Your task to perform on an android device: Open eBay Image 0: 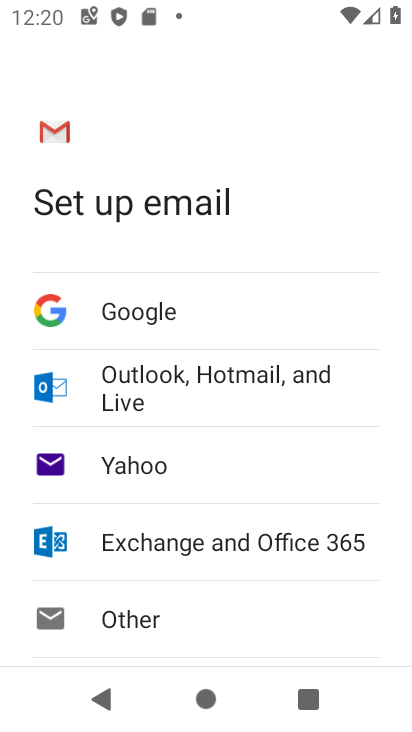
Step 0: press home button
Your task to perform on an android device: Open eBay Image 1: 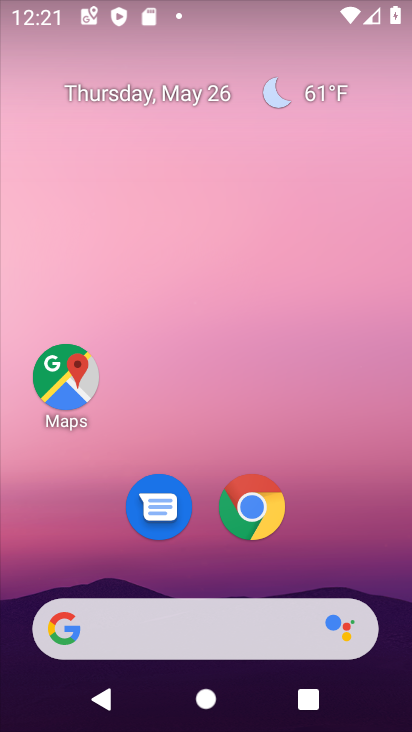
Step 1: click (267, 501)
Your task to perform on an android device: Open eBay Image 2: 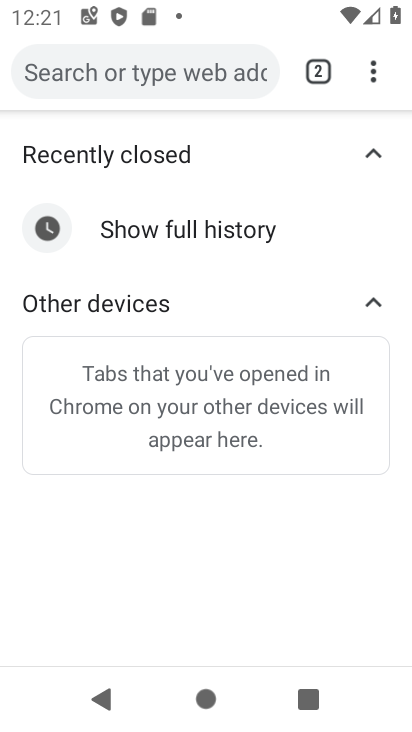
Step 2: click (89, 61)
Your task to perform on an android device: Open eBay Image 3: 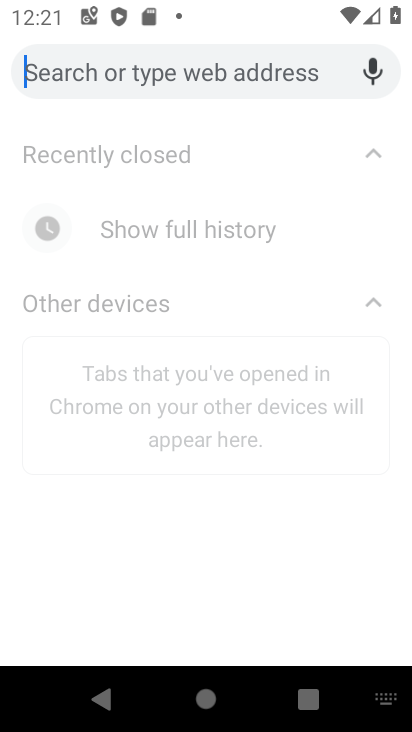
Step 3: type "ebay.com"
Your task to perform on an android device: Open eBay Image 4: 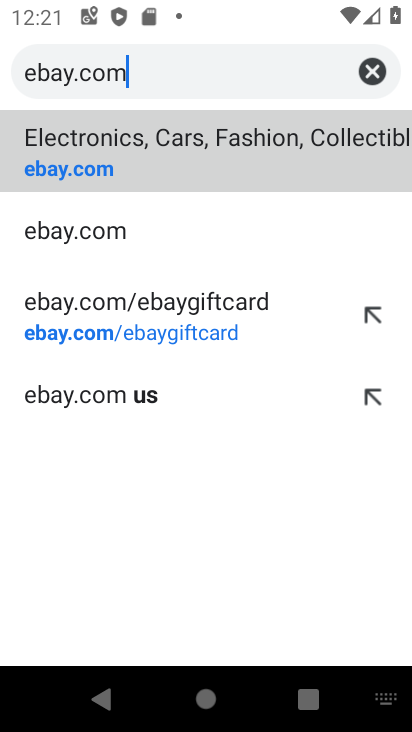
Step 4: click (223, 143)
Your task to perform on an android device: Open eBay Image 5: 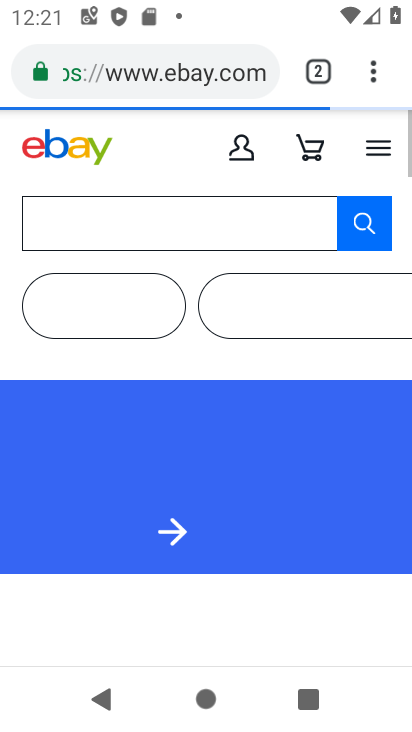
Step 5: task complete